Your task to perform on an android device: all mails in gmail Image 0: 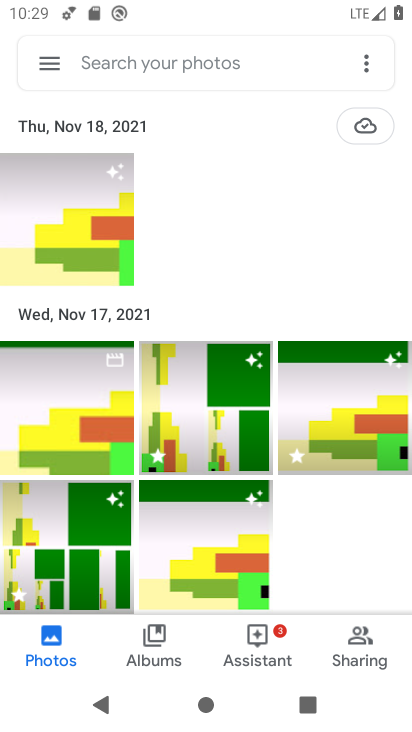
Step 0: press home button
Your task to perform on an android device: all mails in gmail Image 1: 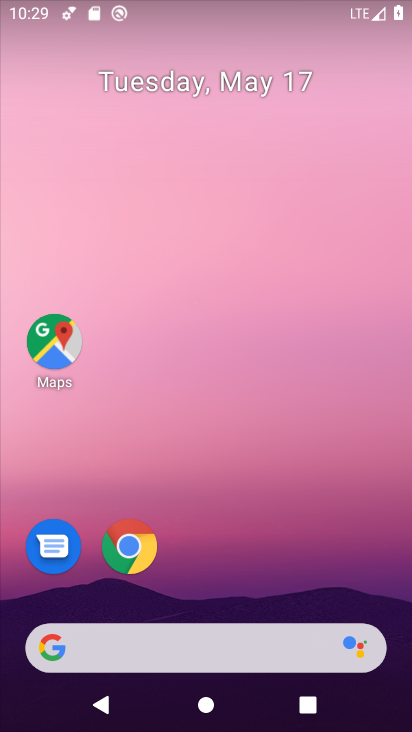
Step 1: drag from (229, 606) to (159, 0)
Your task to perform on an android device: all mails in gmail Image 2: 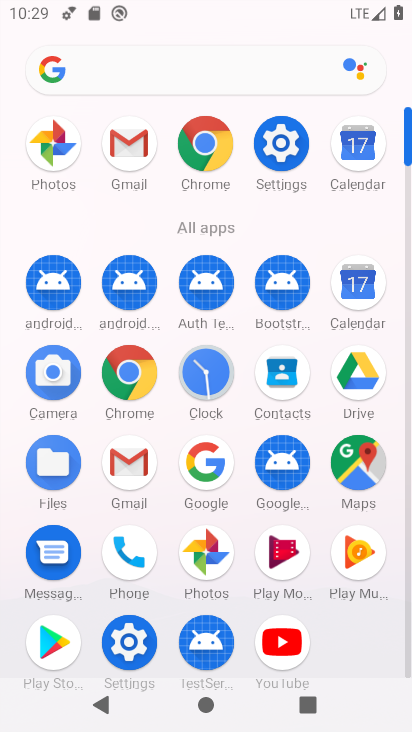
Step 2: click (121, 469)
Your task to perform on an android device: all mails in gmail Image 3: 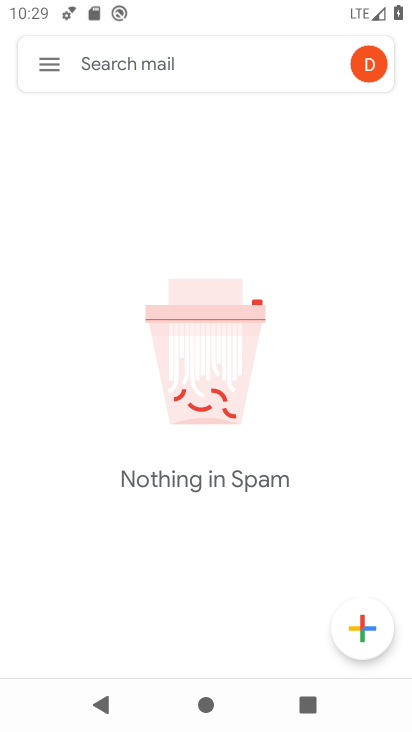
Step 3: click (58, 59)
Your task to perform on an android device: all mails in gmail Image 4: 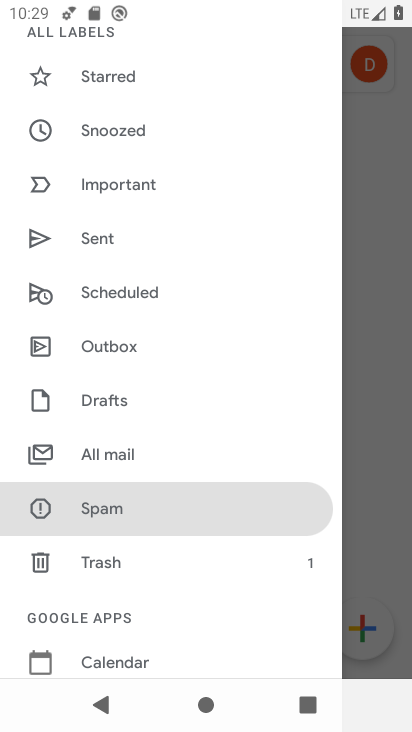
Step 4: click (117, 461)
Your task to perform on an android device: all mails in gmail Image 5: 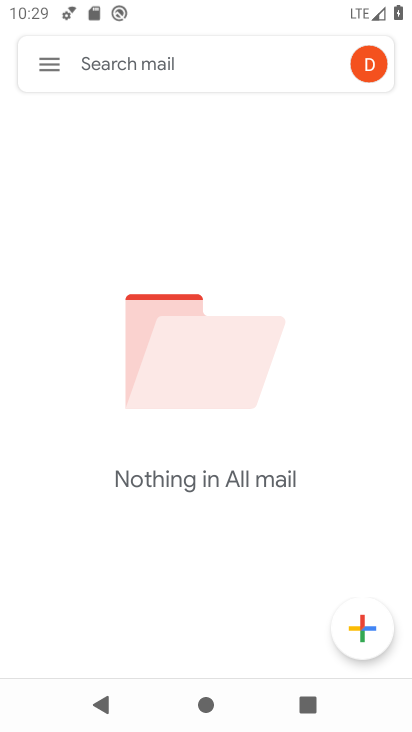
Step 5: task complete